Your task to perform on an android device: open app "Google Play Games" Image 0: 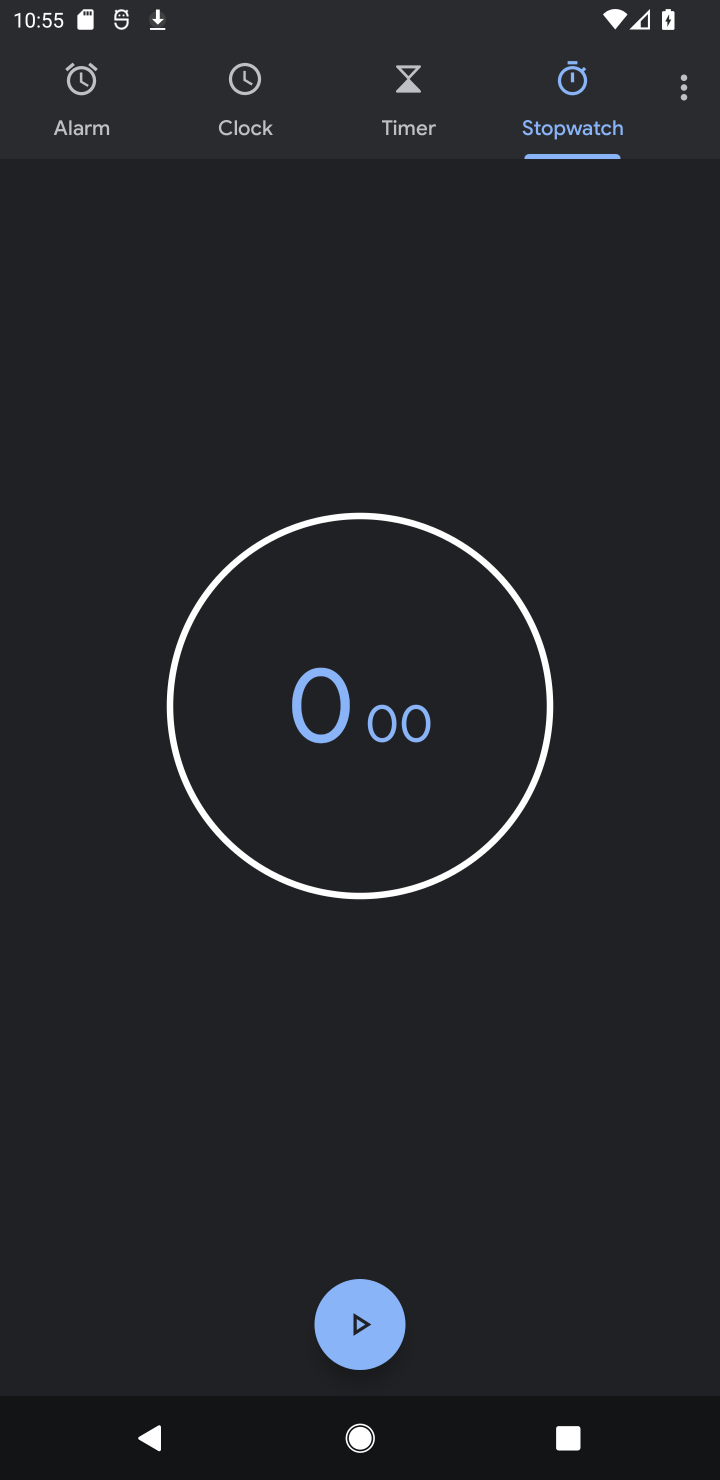
Step 0: press home button
Your task to perform on an android device: open app "Google Play Games" Image 1: 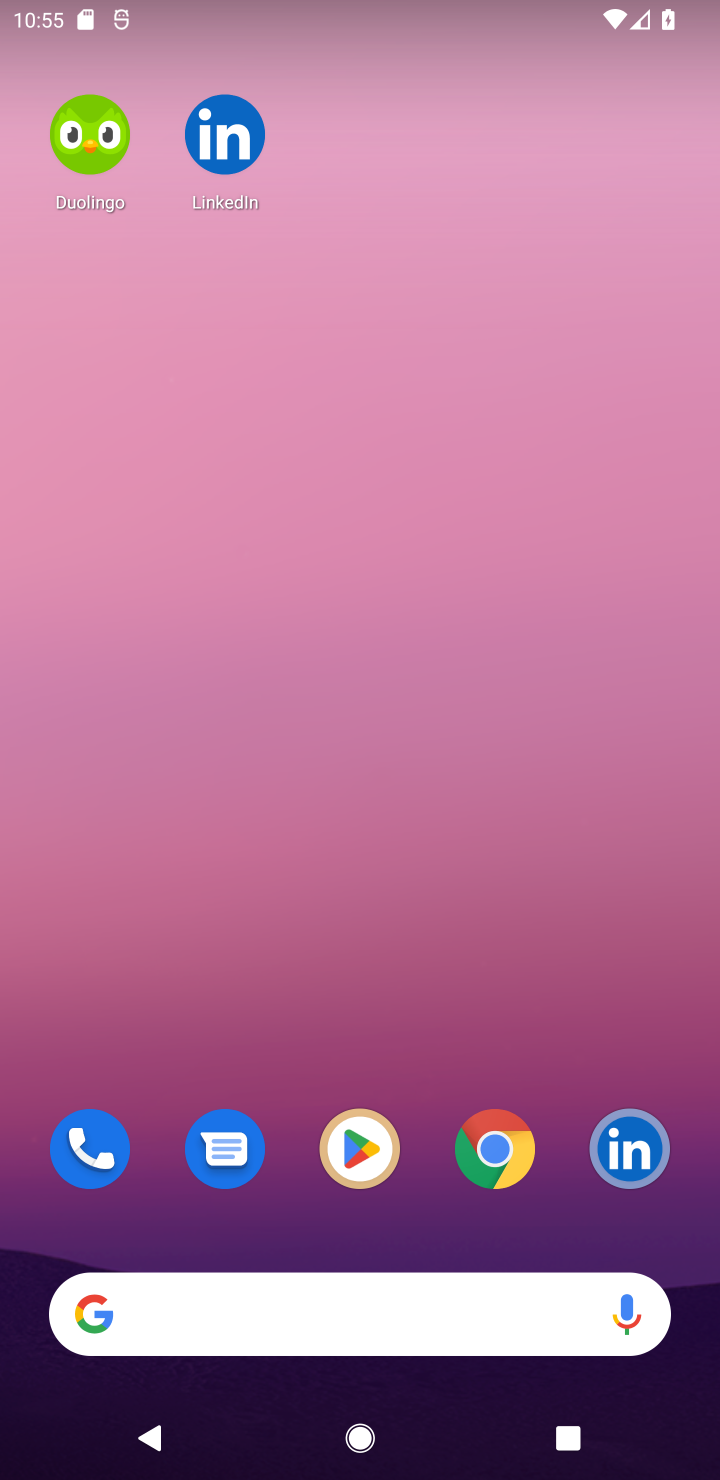
Step 1: click (360, 1140)
Your task to perform on an android device: open app "Google Play Games" Image 2: 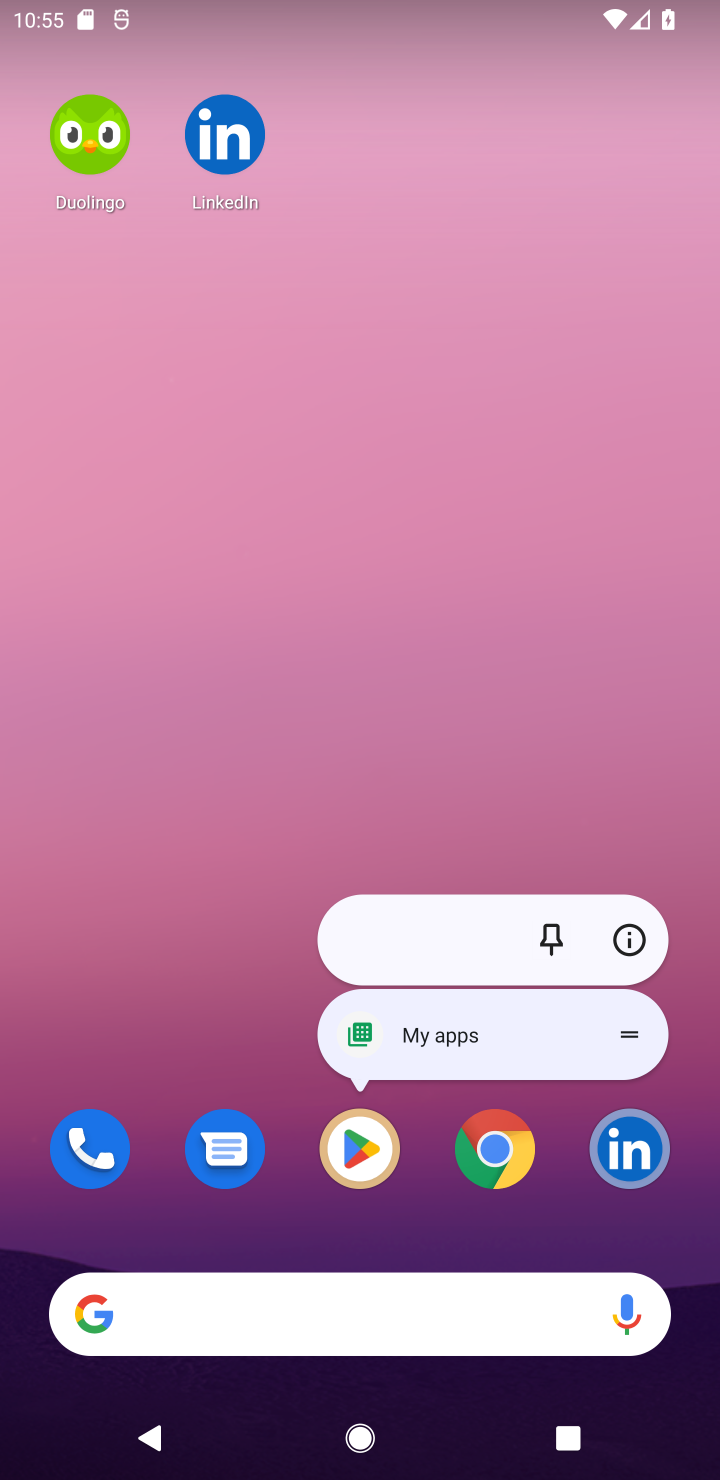
Step 2: click (551, 510)
Your task to perform on an android device: open app "Google Play Games" Image 3: 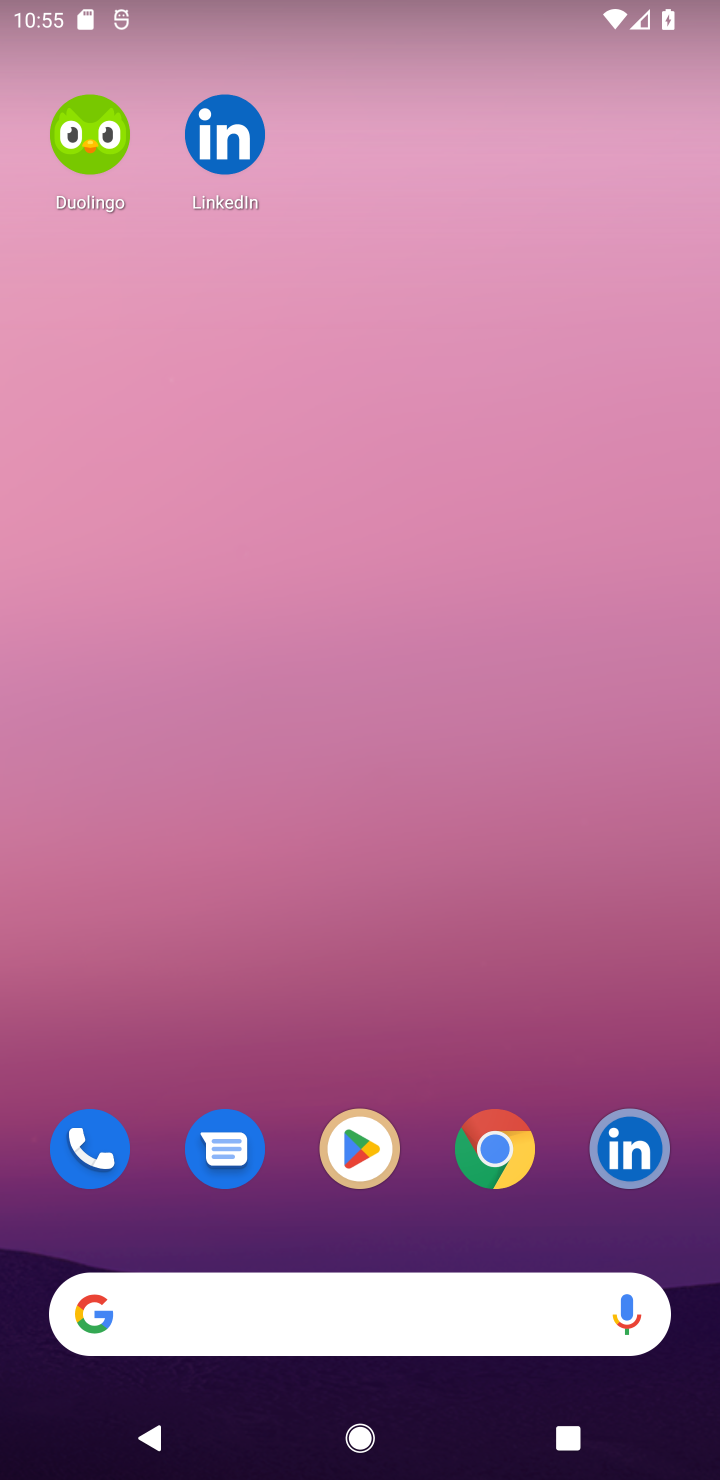
Step 3: click (367, 1170)
Your task to perform on an android device: open app "Google Play Games" Image 4: 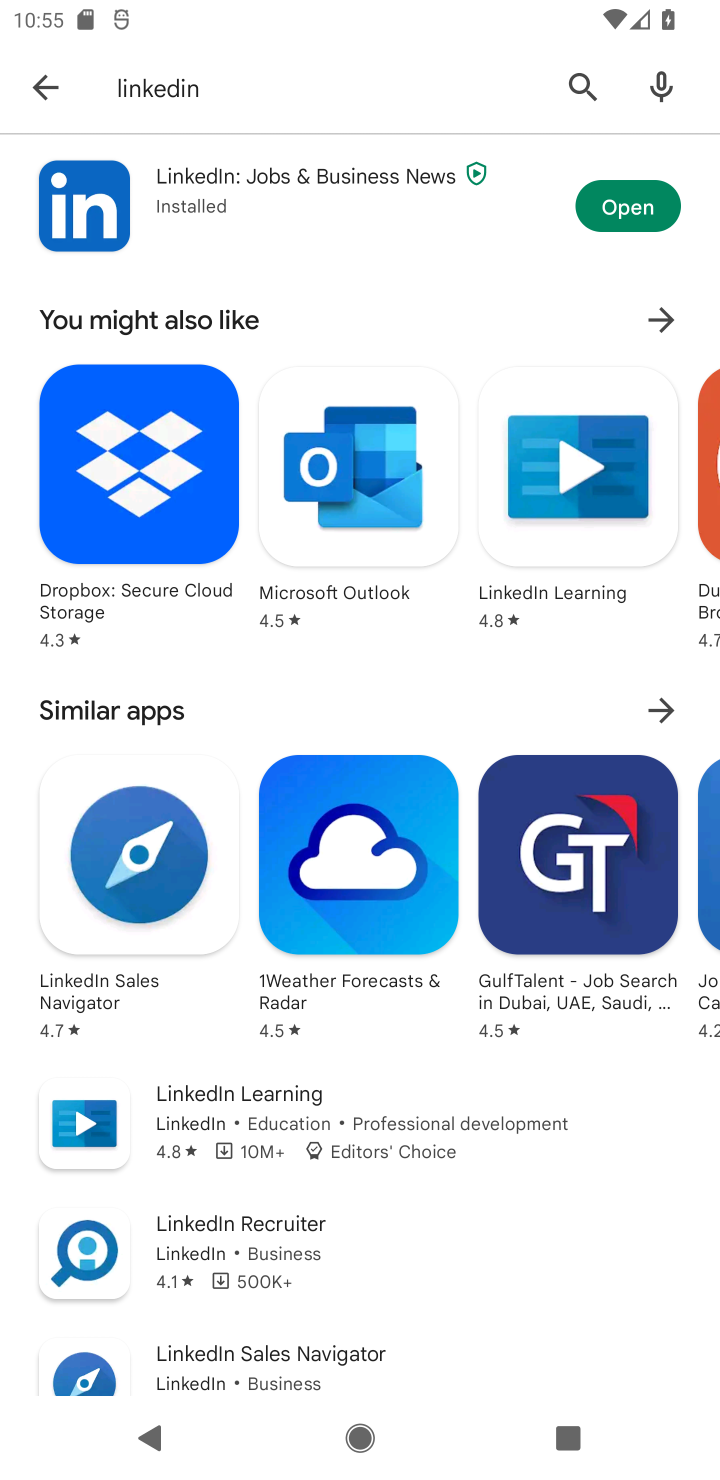
Step 4: click (580, 74)
Your task to perform on an android device: open app "Google Play Games" Image 5: 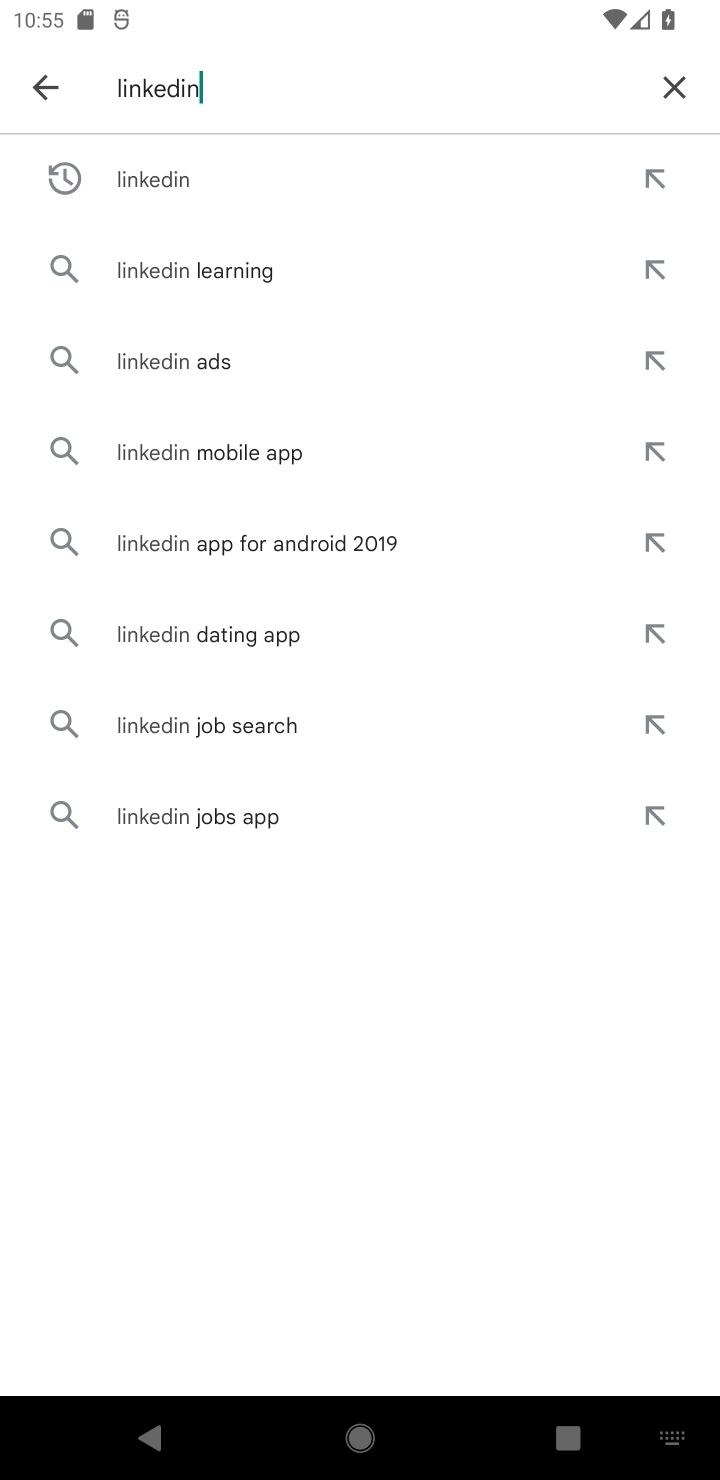
Step 5: click (666, 80)
Your task to perform on an android device: open app "Google Play Games" Image 6: 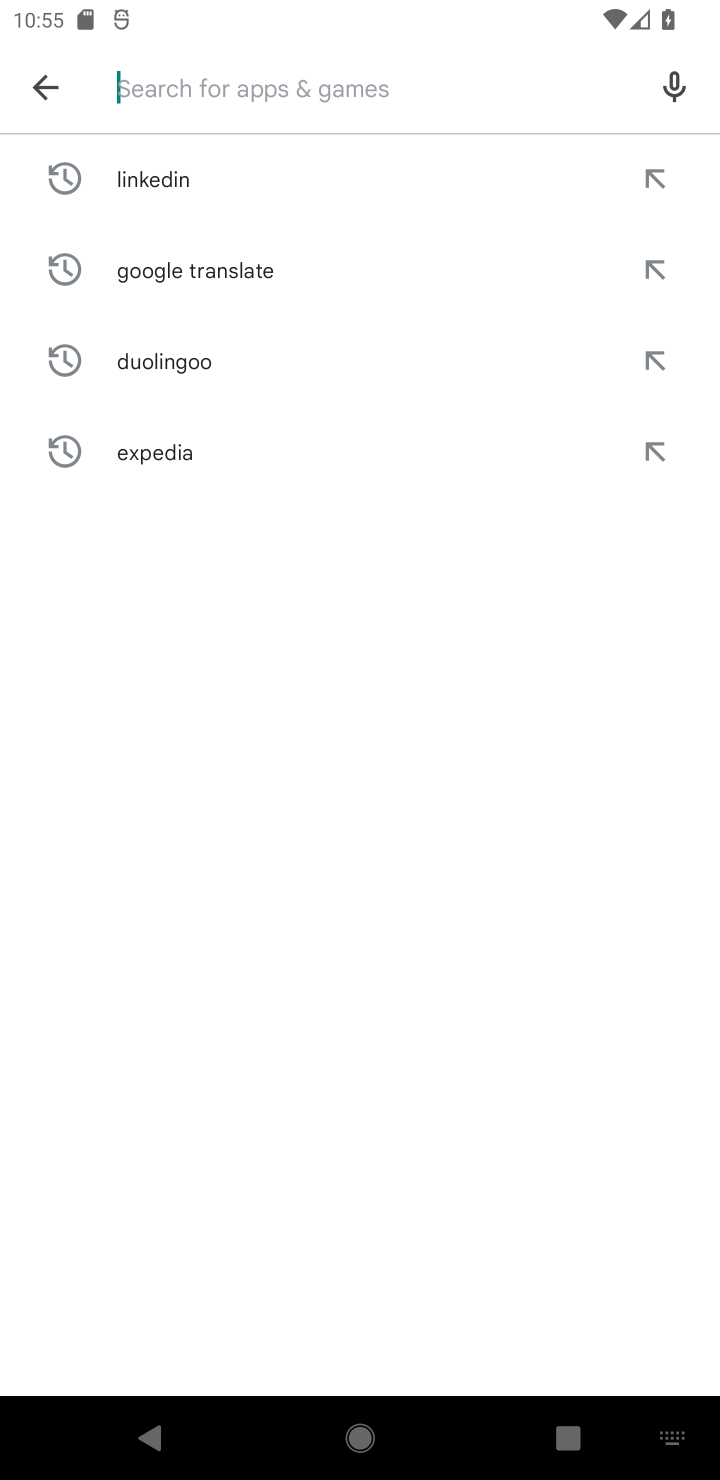
Step 6: type "google play"
Your task to perform on an android device: open app "Google Play Games" Image 7: 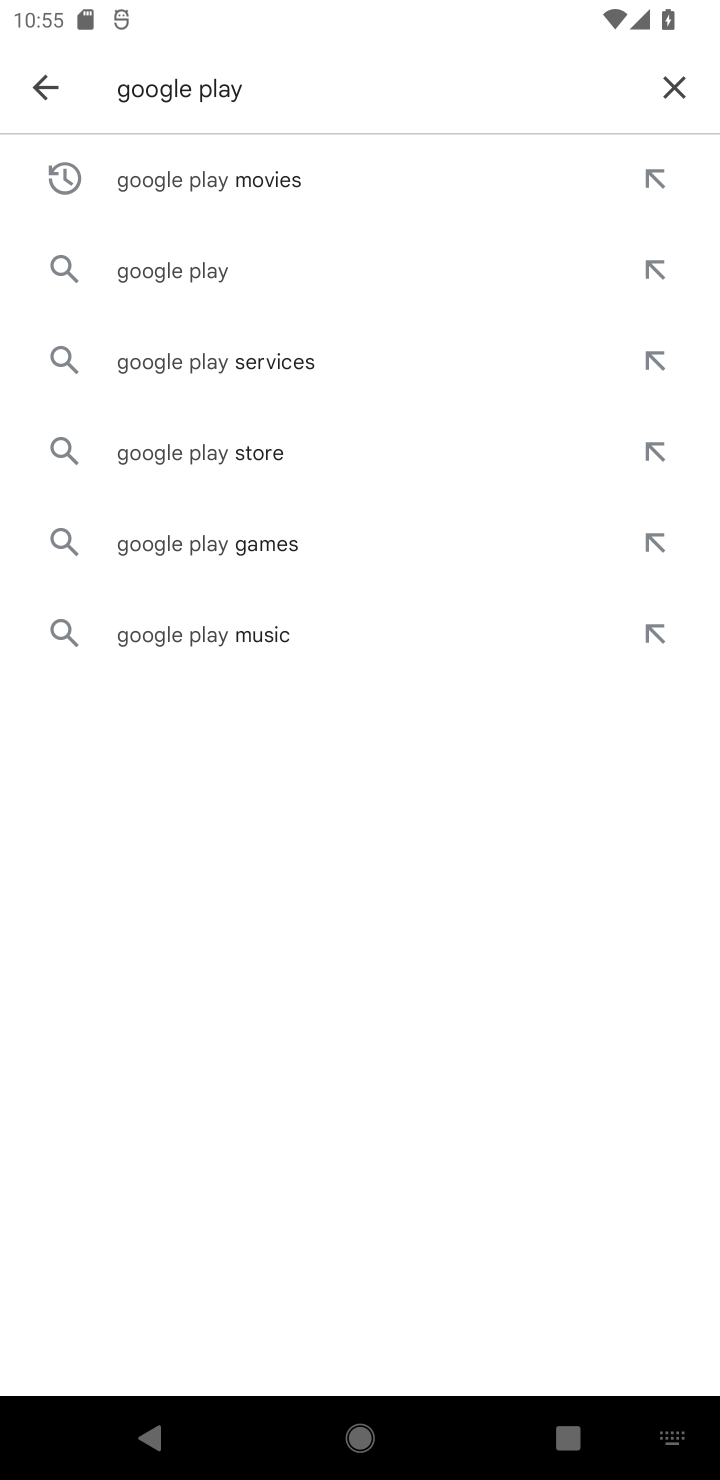
Step 7: click (213, 190)
Your task to perform on an android device: open app "Google Play Games" Image 8: 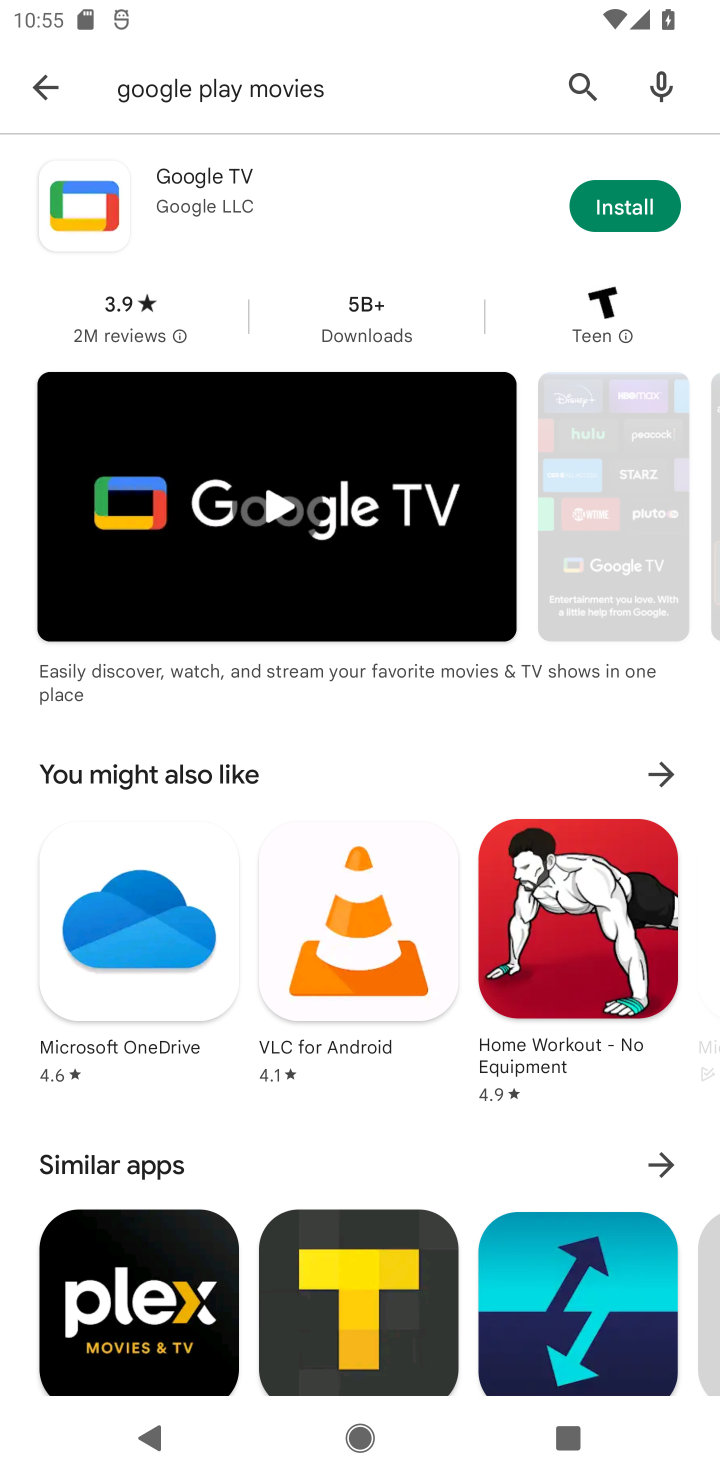
Step 8: task complete